Your task to perform on an android device: move an email to a new category in the gmail app Image 0: 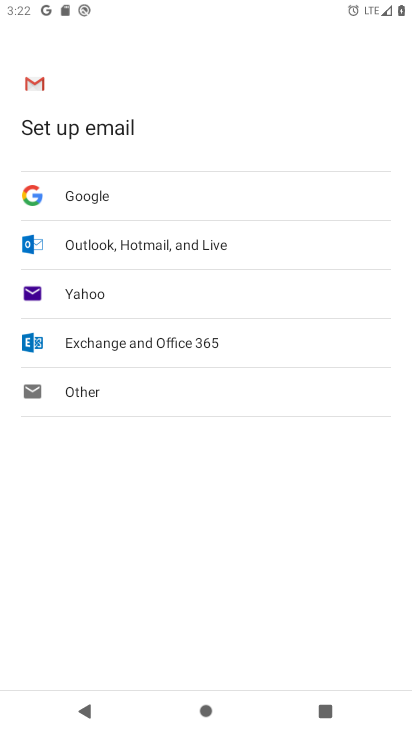
Step 0: press home button
Your task to perform on an android device: move an email to a new category in the gmail app Image 1: 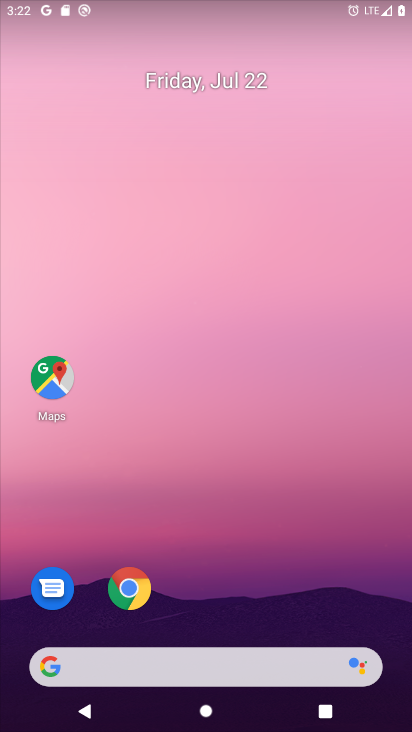
Step 1: drag from (291, 564) to (314, 95)
Your task to perform on an android device: move an email to a new category in the gmail app Image 2: 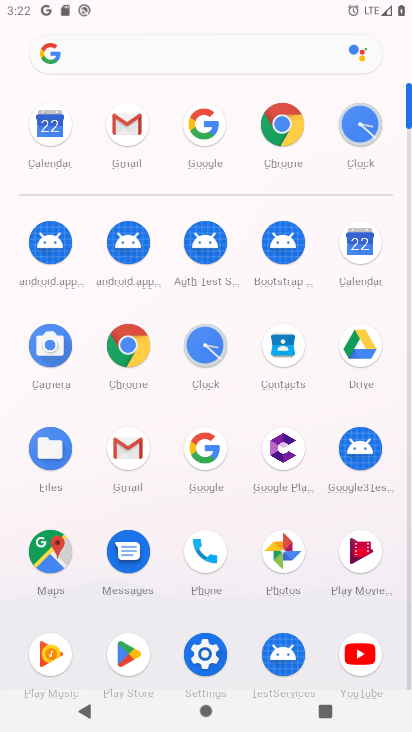
Step 2: click (127, 443)
Your task to perform on an android device: move an email to a new category in the gmail app Image 3: 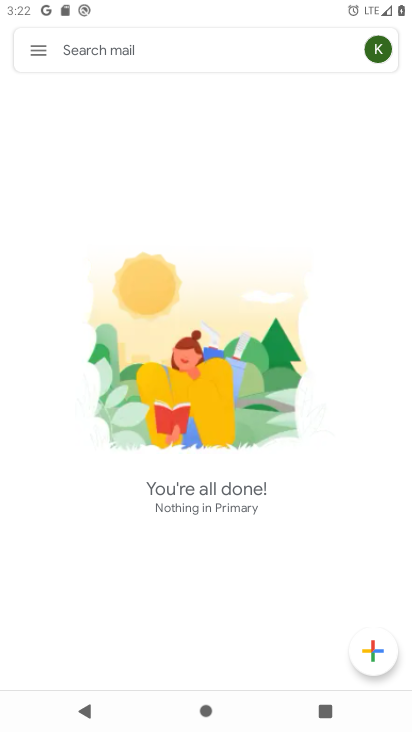
Step 3: task complete